Your task to perform on an android device: see sites visited before in the chrome app Image 0: 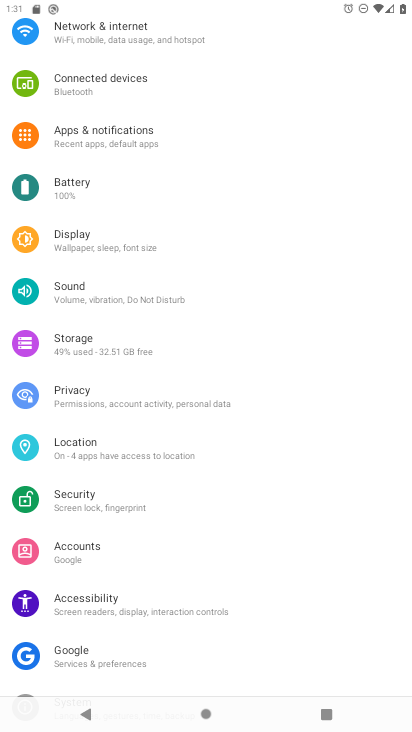
Step 0: press home button
Your task to perform on an android device: see sites visited before in the chrome app Image 1: 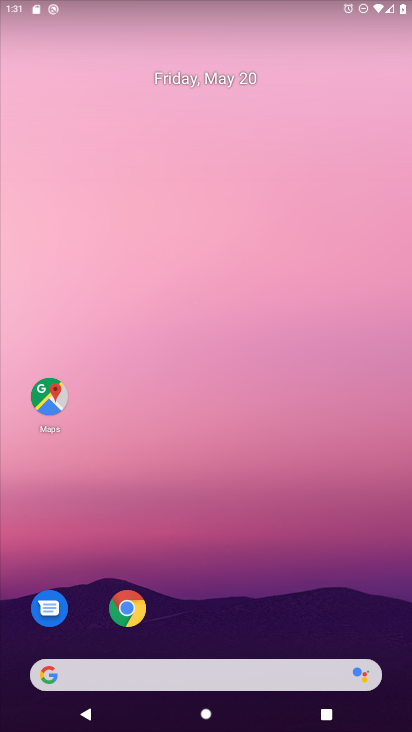
Step 1: click (122, 607)
Your task to perform on an android device: see sites visited before in the chrome app Image 2: 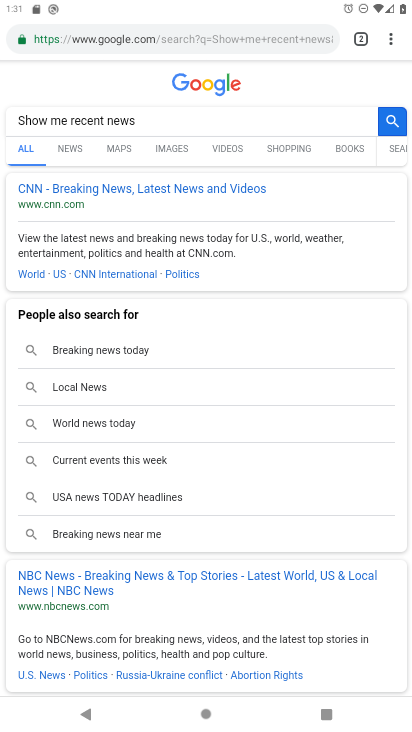
Step 2: task complete